Your task to perform on an android device: see sites visited before in the chrome app Image 0: 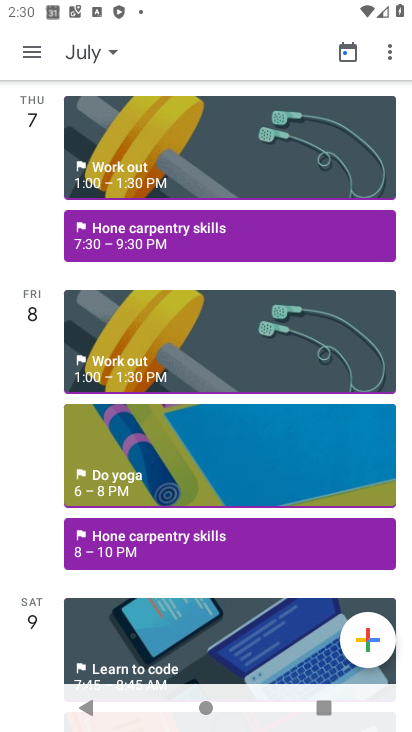
Step 0: press home button
Your task to perform on an android device: see sites visited before in the chrome app Image 1: 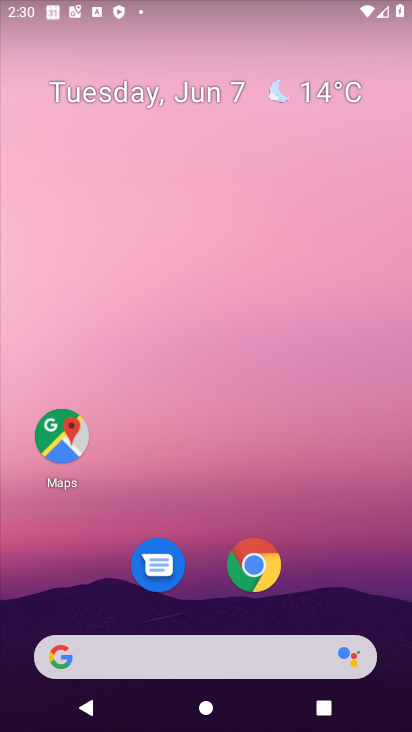
Step 1: drag from (238, 658) to (318, 70)
Your task to perform on an android device: see sites visited before in the chrome app Image 2: 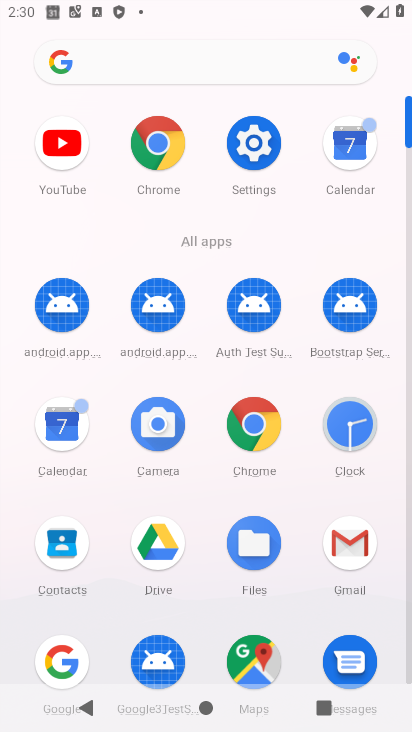
Step 2: click (268, 417)
Your task to perform on an android device: see sites visited before in the chrome app Image 3: 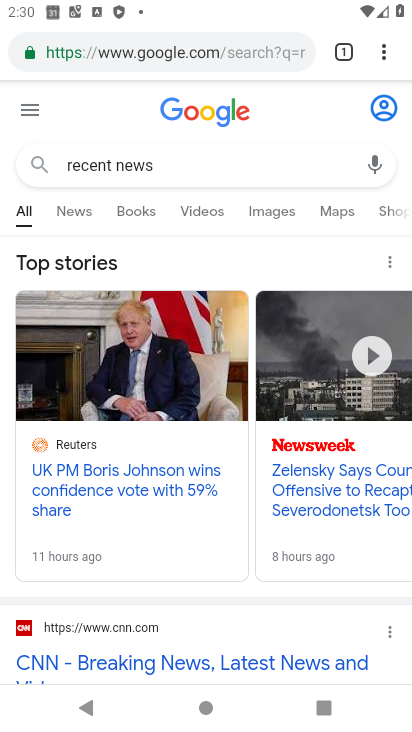
Step 3: task complete